Your task to perform on an android device: Turn on the flashlight Image 0: 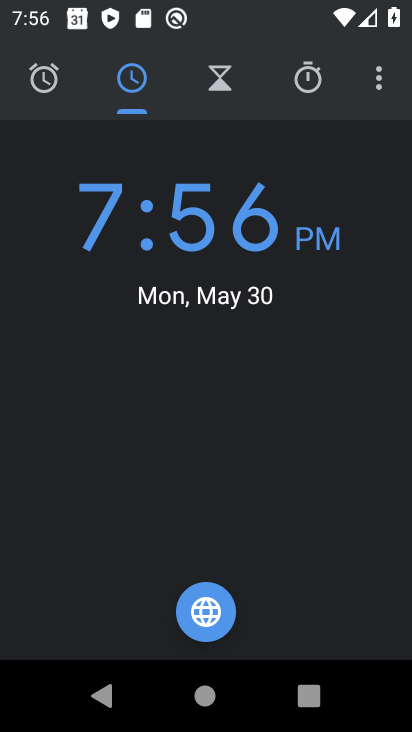
Step 0: press back button
Your task to perform on an android device: Turn on the flashlight Image 1: 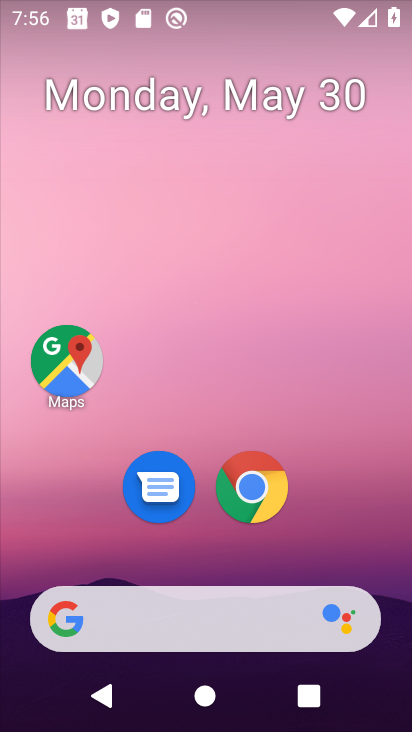
Step 1: drag from (401, 706) to (356, 319)
Your task to perform on an android device: Turn on the flashlight Image 2: 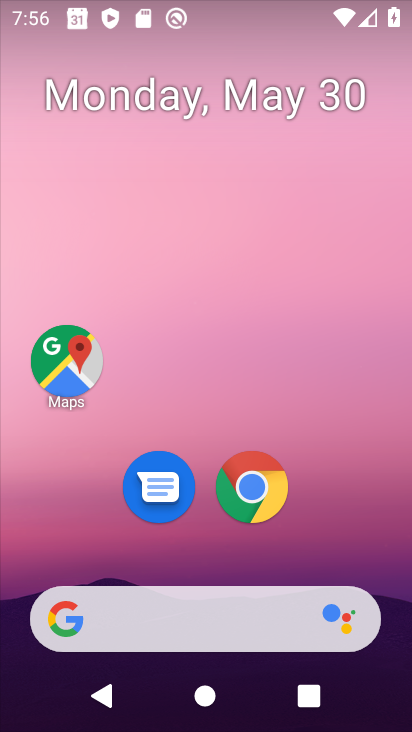
Step 2: drag from (383, 691) to (322, 196)
Your task to perform on an android device: Turn on the flashlight Image 3: 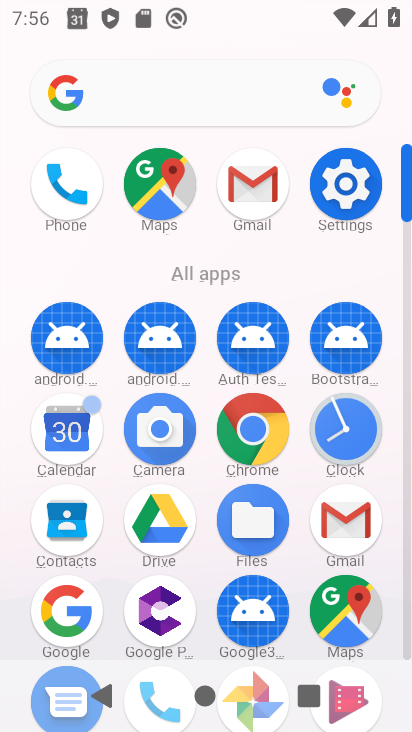
Step 3: click (343, 195)
Your task to perform on an android device: Turn on the flashlight Image 4: 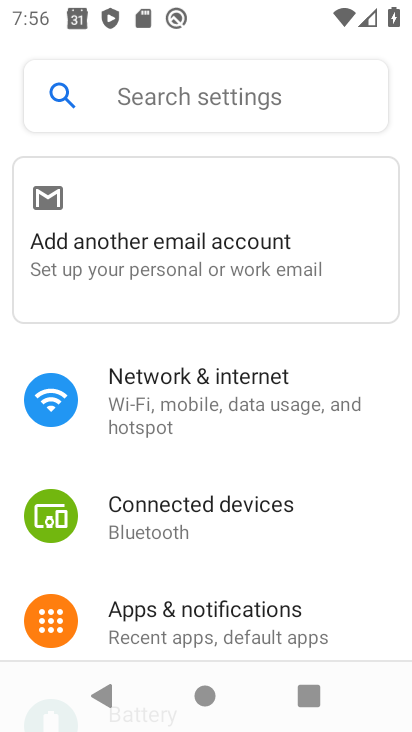
Step 4: drag from (366, 611) to (335, 296)
Your task to perform on an android device: Turn on the flashlight Image 5: 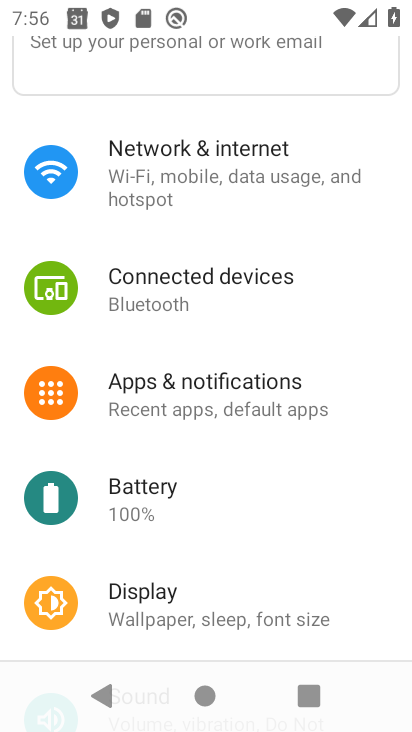
Step 5: click (125, 598)
Your task to perform on an android device: Turn on the flashlight Image 6: 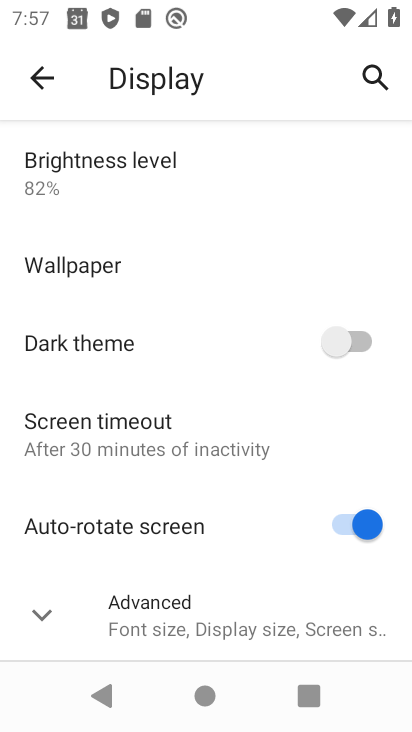
Step 6: task complete